Your task to perform on an android device: Go to Google Image 0: 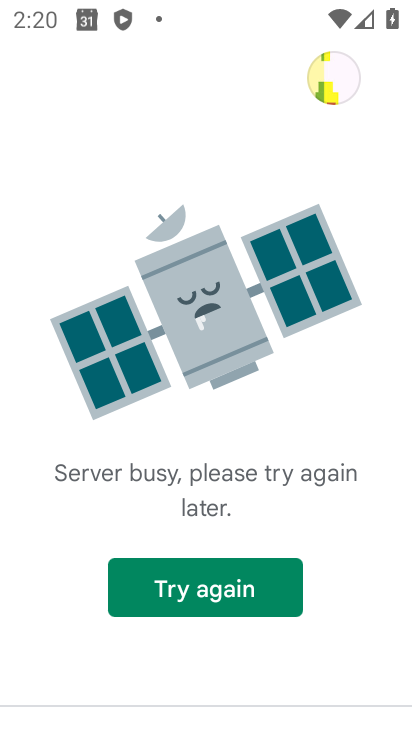
Step 0: press home button
Your task to perform on an android device: Go to Google Image 1: 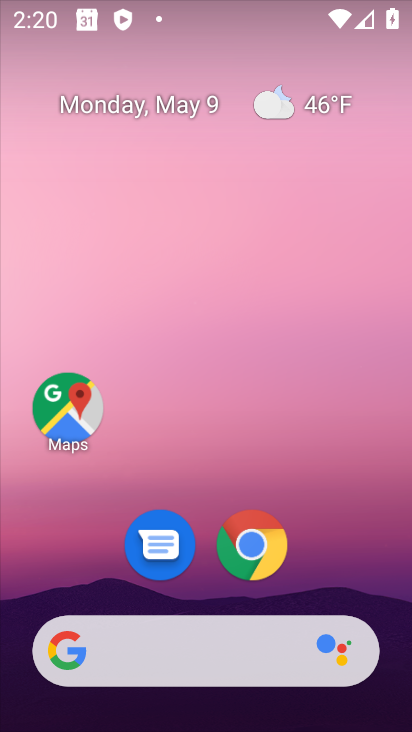
Step 1: drag from (205, 599) to (211, 164)
Your task to perform on an android device: Go to Google Image 2: 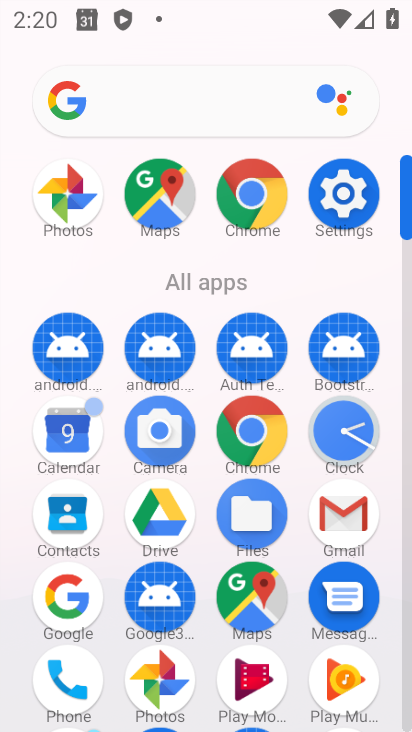
Step 2: click (77, 601)
Your task to perform on an android device: Go to Google Image 3: 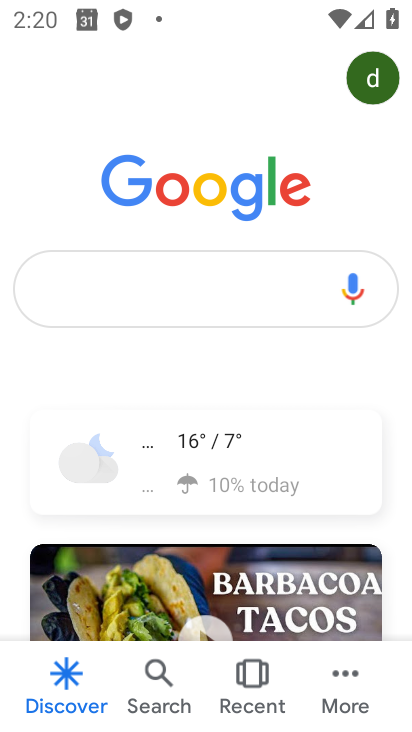
Step 3: task complete